Your task to perform on an android device: Open network settings Image 0: 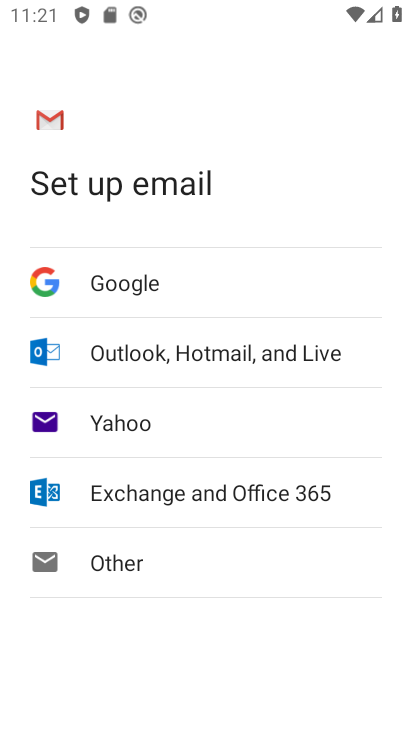
Step 0: press home button
Your task to perform on an android device: Open network settings Image 1: 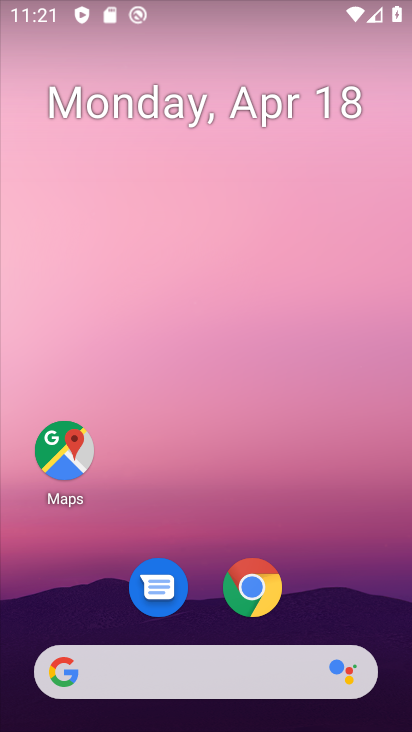
Step 1: drag from (306, 587) to (318, 168)
Your task to perform on an android device: Open network settings Image 2: 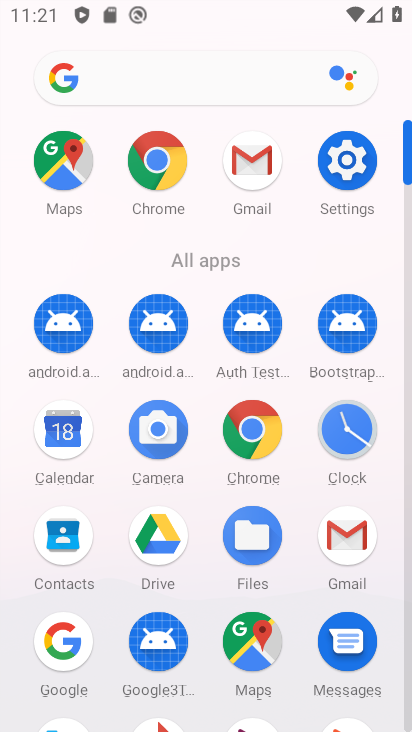
Step 2: click (337, 178)
Your task to perform on an android device: Open network settings Image 3: 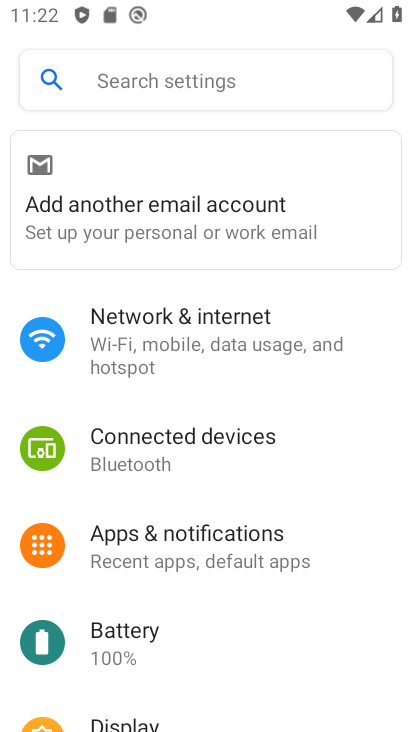
Step 3: click (150, 318)
Your task to perform on an android device: Open network settings Image 4: 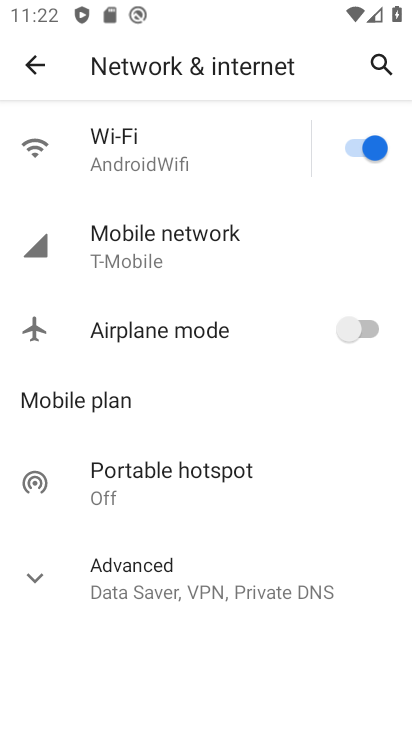
Step 4: task complete